Your task to perform on an android device: turn off javascript in the chrome app Image 0: 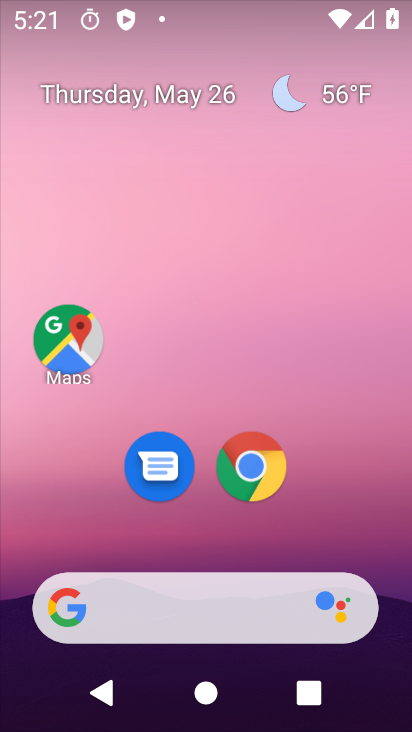
Step 0: click (263, 457)
Your task to perform on an android device: turn off javascript in the chrome app Image 1: 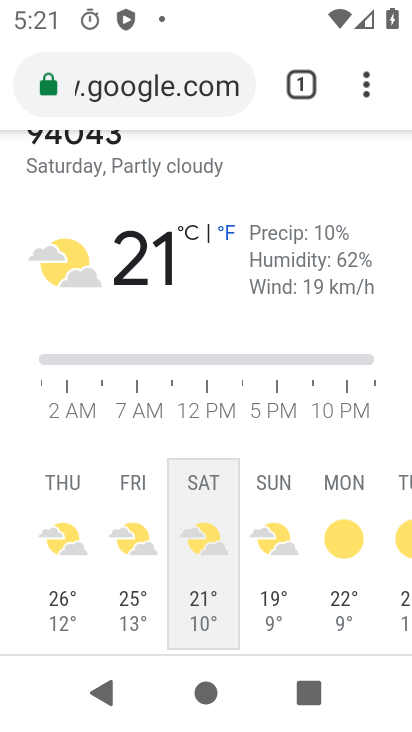
Step 1: drag from (365, 93) to (150, 522)
Your task to perform on an android device: turn off javascript in the chrome app Image 2: 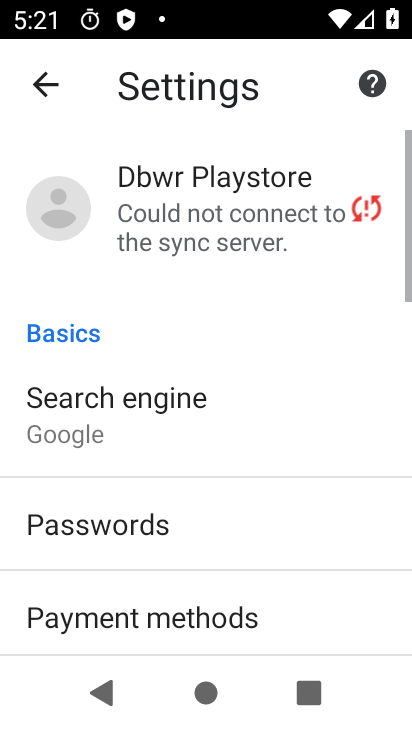
Step 2: drag from (273, 617) to (294, 118)
Your task to perform on an android device: turn off javascript in the chrome app Image 3: 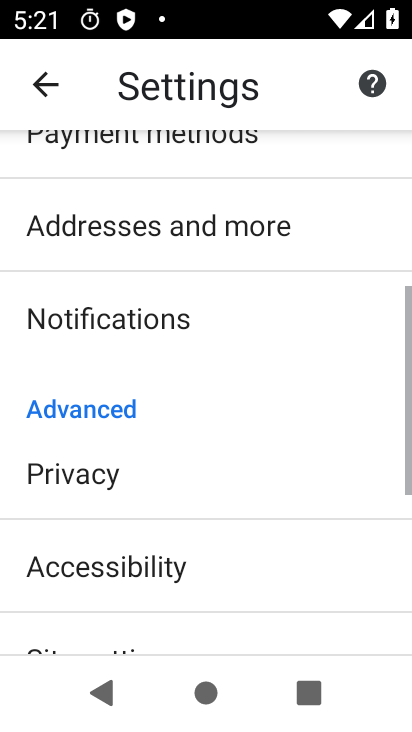
Step 3: drag from (261, 567) to (287, 215)
Your task to perform on an android device: turn off javascript in the chrome app Image 4: 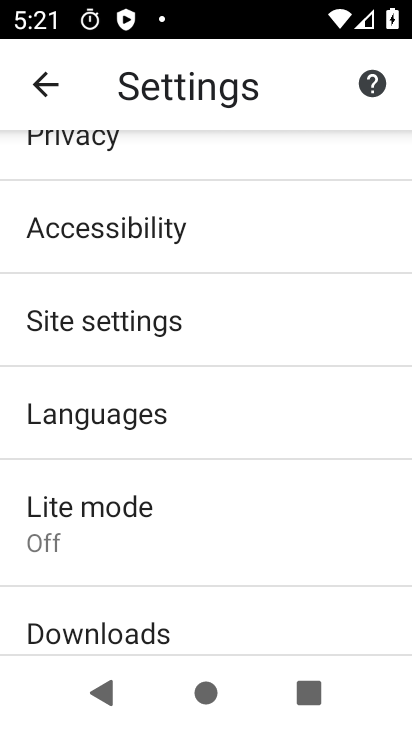
Step 4: click (151, 310)
Your task to perform on an android device: turn off javascript in the chrome app Image 5: 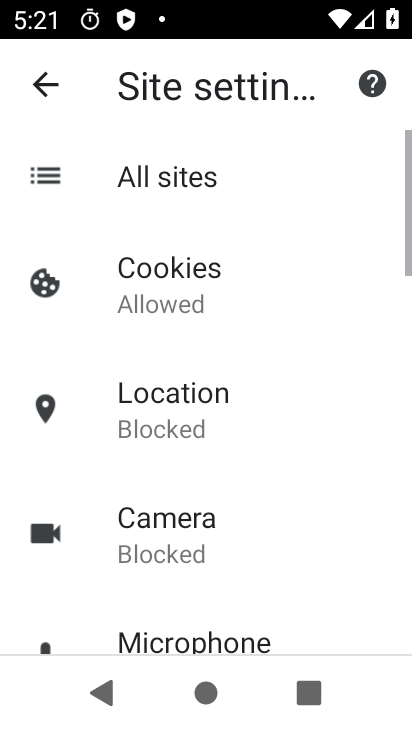
Step 5: drag from (308, 517) to (327, 182)
Your task to perform on an android device: turn off javascript in the chrome app Image 6: 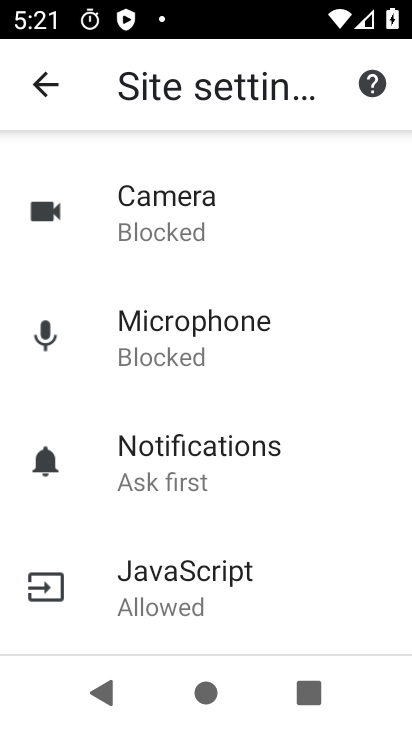
Step 6: click (209, 587)
Your task to perform on an android device: turn off javascript in the chrome app Image 7: 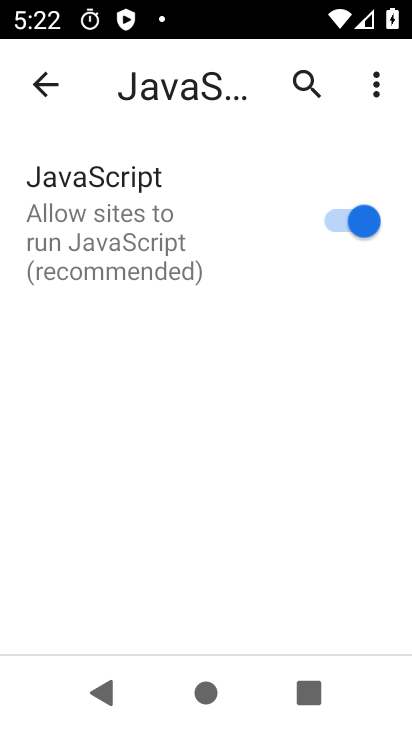
Step 7: click (356, 224)
Your task to perform on an android device: turn off javascript in the chrome app Image 8: 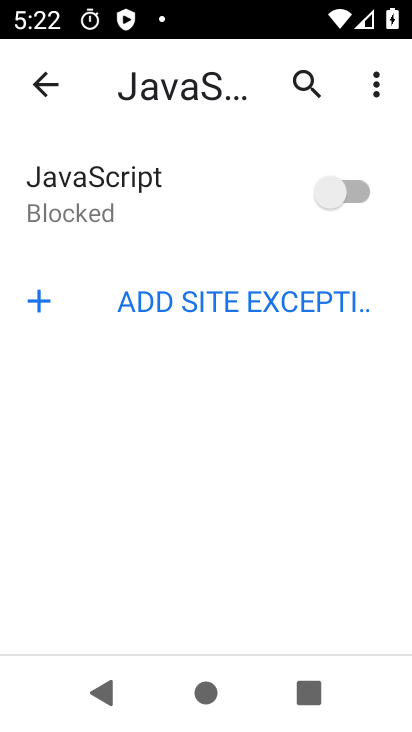
Step 8: task complete